Your task to perform on an android device: Open Maps and search for coffee Image 0: 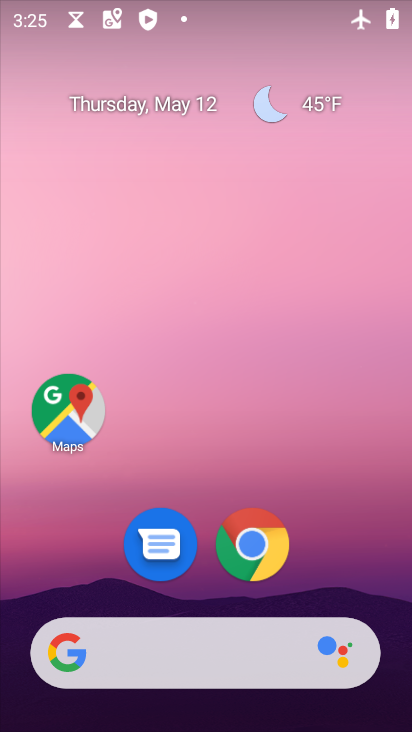
Step 0: click (51, 406)
Your task to perform on an android device: Open Maps and search for coffee Image 1: 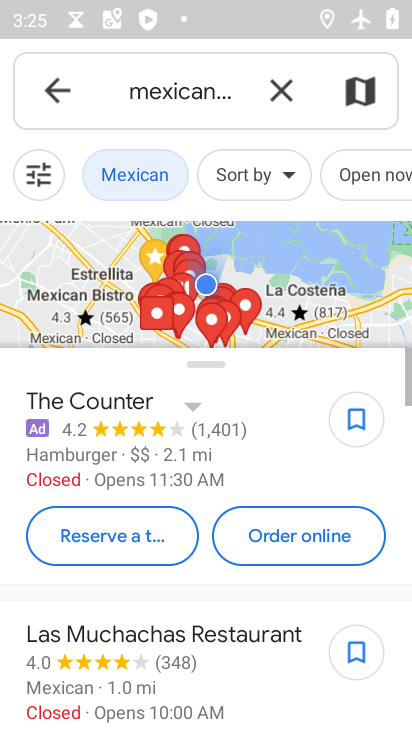
Step 1: click (285, 92)
Your task to perform on an android device: Open Maps and search for coffee Image 2: 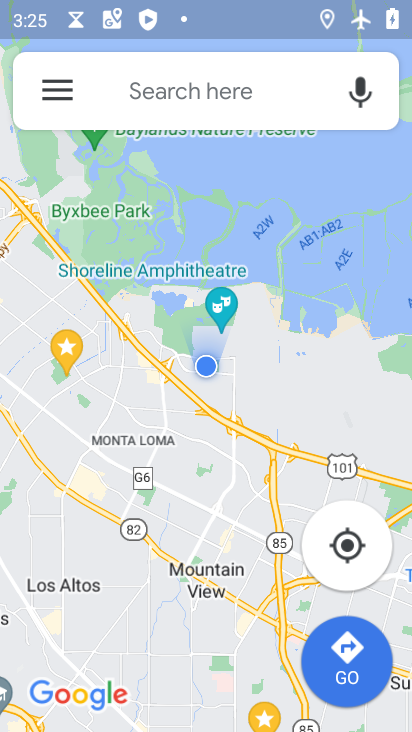
Step 2: click (200, 80)
Your task to perform on an android device: Open Maps and search for coffee Image 3: 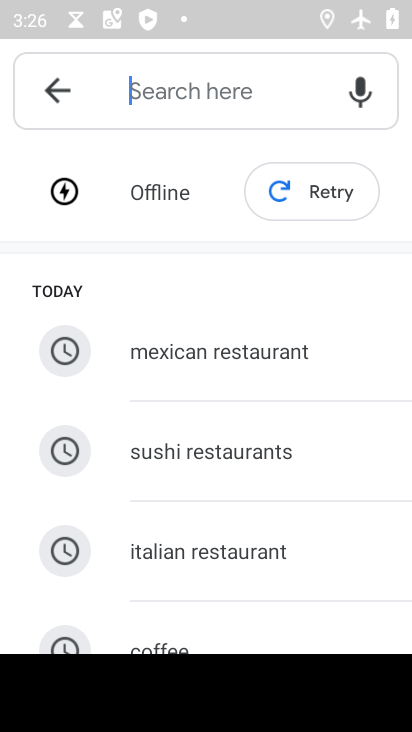
Step 3: type "coffee"
Your task to perform on an android device: Open Maps and search for coffee Image 4: 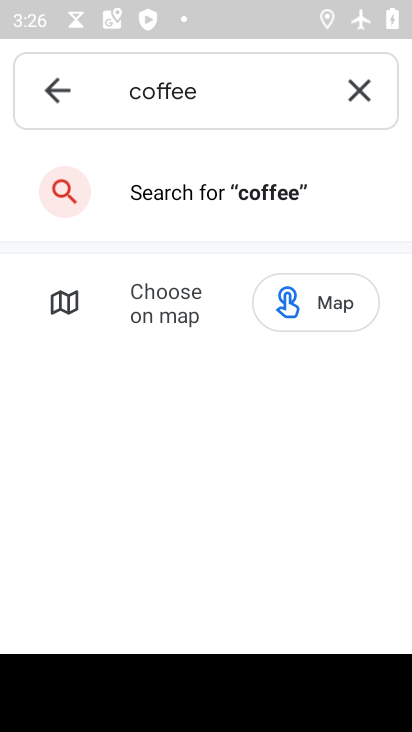
Step 4: click (198, 185)
Your task to perform on an android device: Open Maps and search for coffee Image 5: 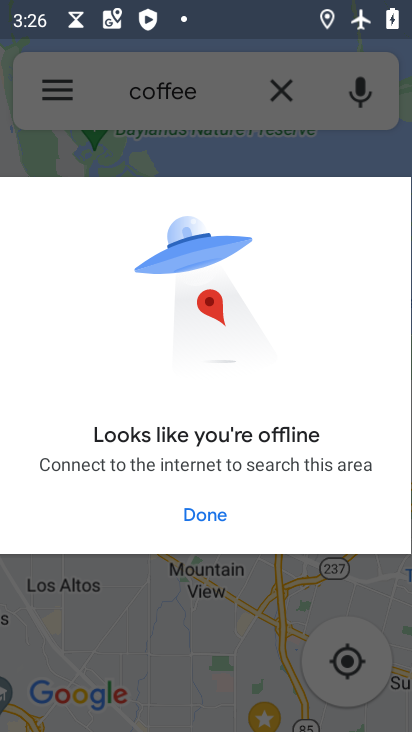
Step 5: task complete